Your task to perform on an android device: install app "Gmail" Image 0: 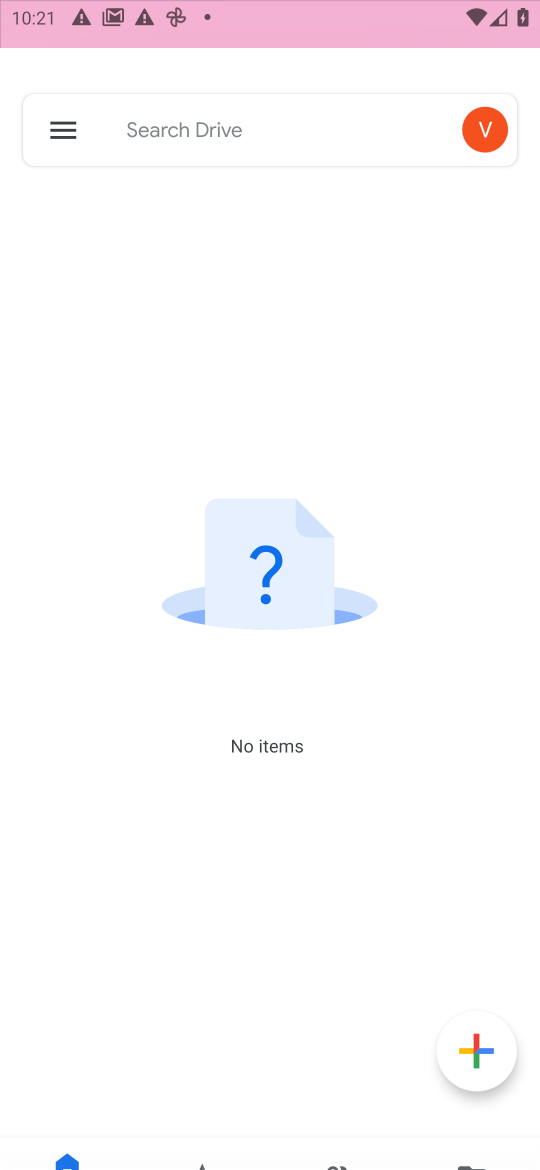
Step 0: drag from (490, 985) to (145, 2)
Your task to perform on an android device: install app "Gmail" Image 1: 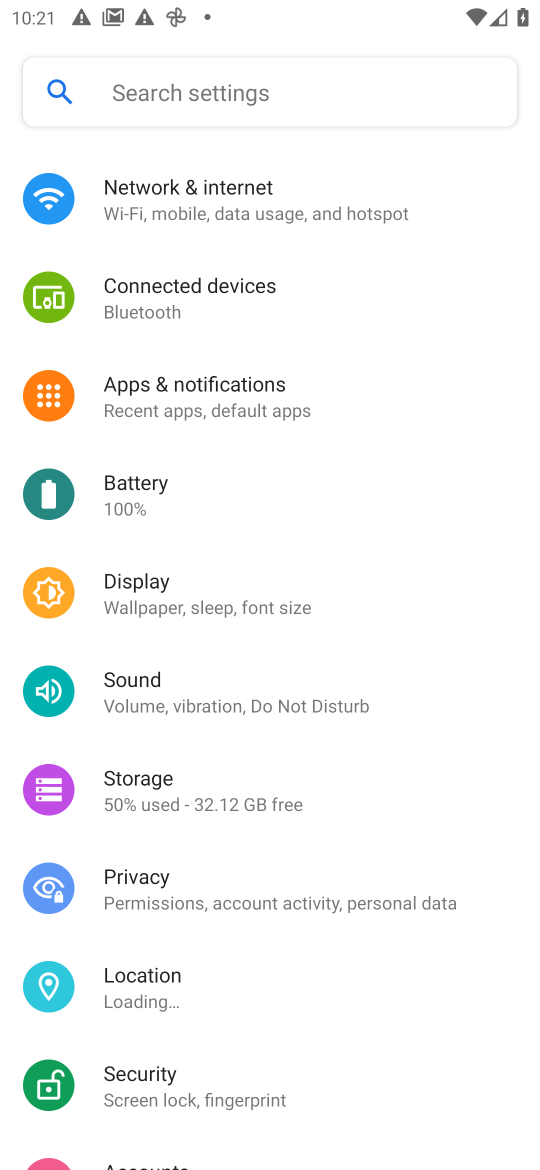
Step 1: press home button
Your task to perform on an android device: install app "Gmail" Image 2: 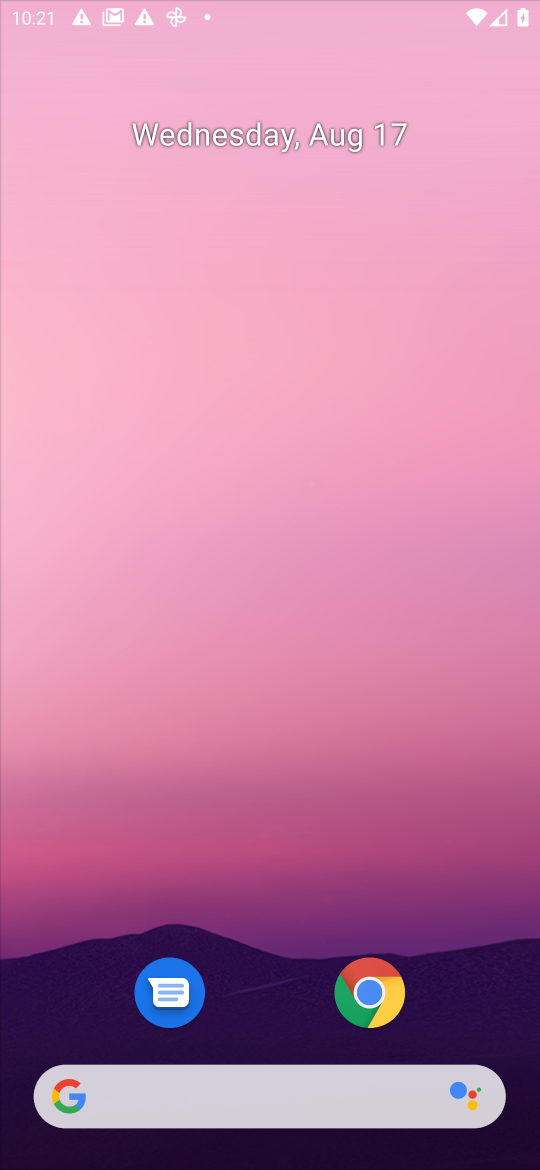
Step 2: drag from (474, 993) to (300, 94)
Your task to perform on an android device: install app "Gmail" Image 3: 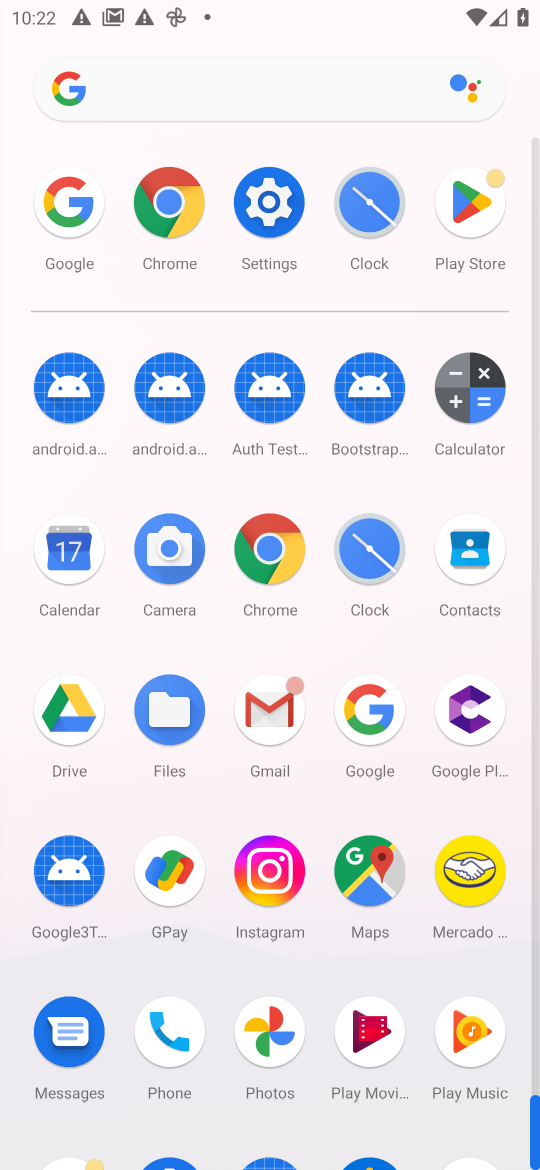
Step 3: click (494, 215)
Your task to perform on an android device: install app "Gmail" Image 4: 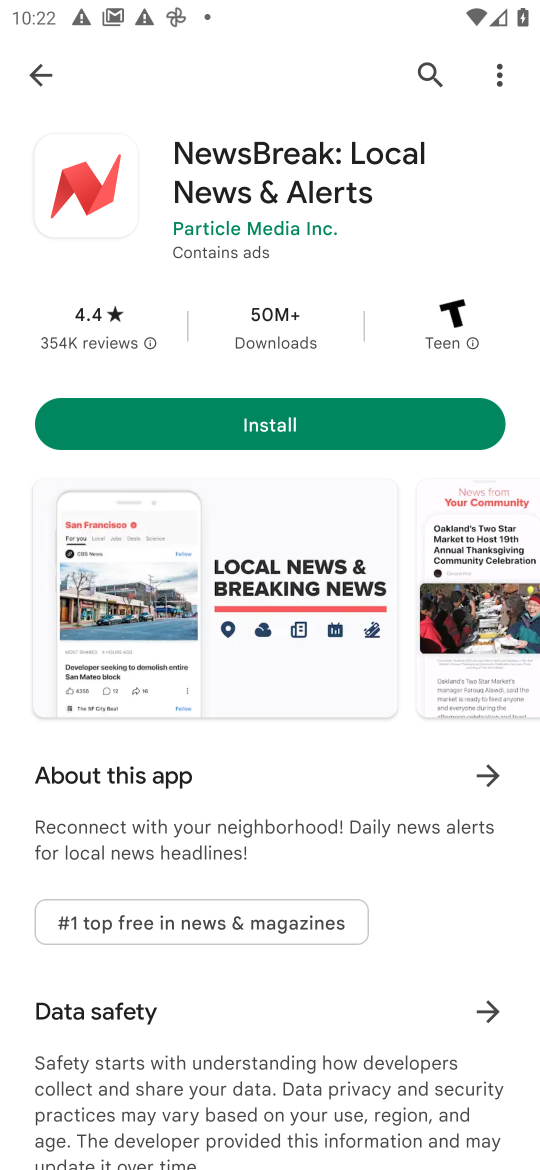
Step 4: press back button
Your task to perform on an android device: install app "Gmail" Image 5: 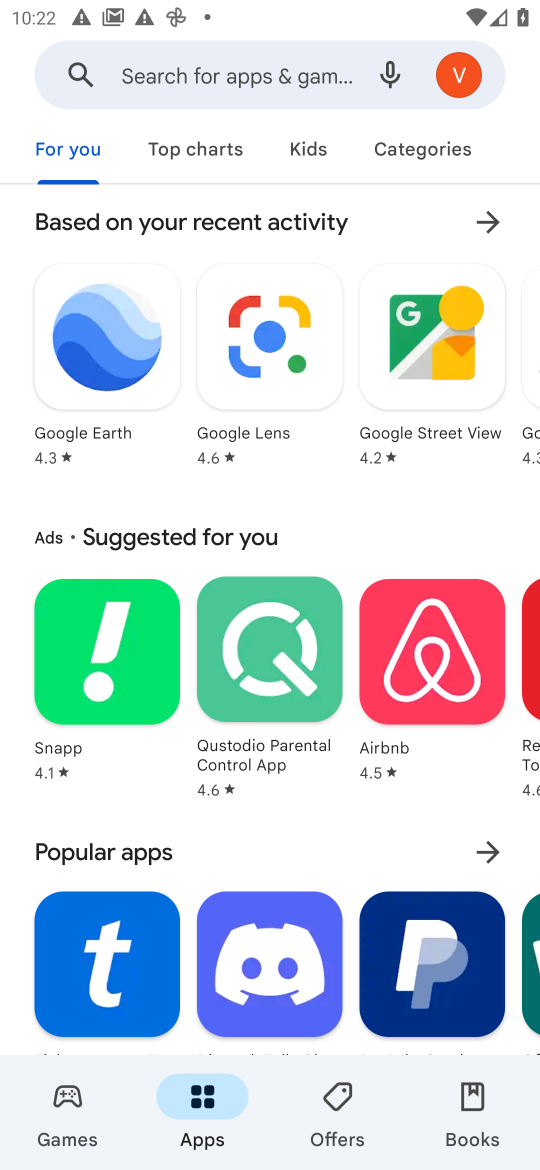
Step 5: click (215, 81)
Your task to perform on an android device: install app "Gmail" Image 6: 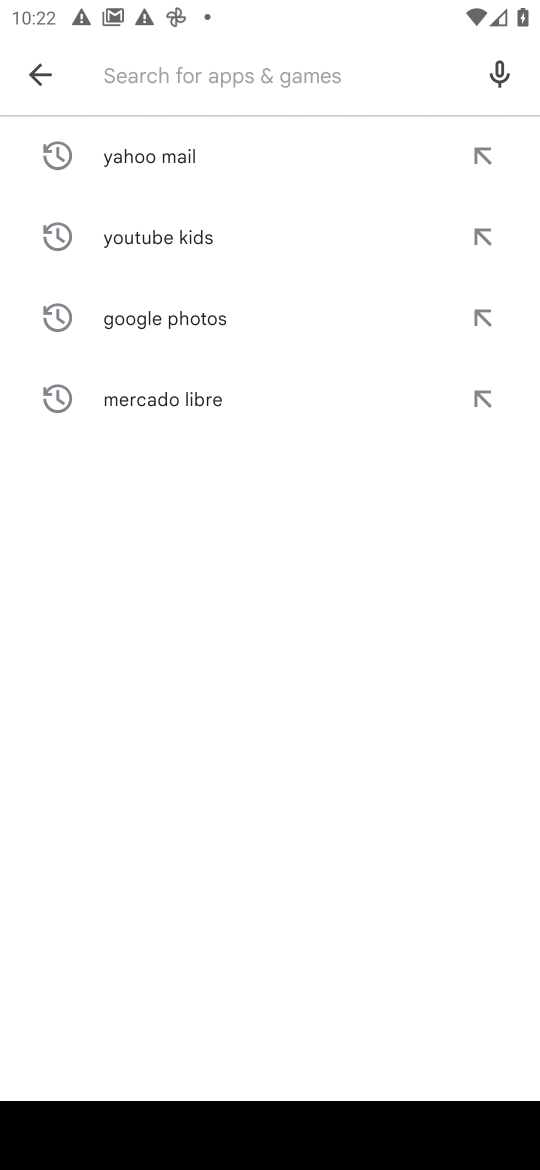
Step 6: type "Gmail"
Your task to perform on an android device: install app "Gmail" Image 7: 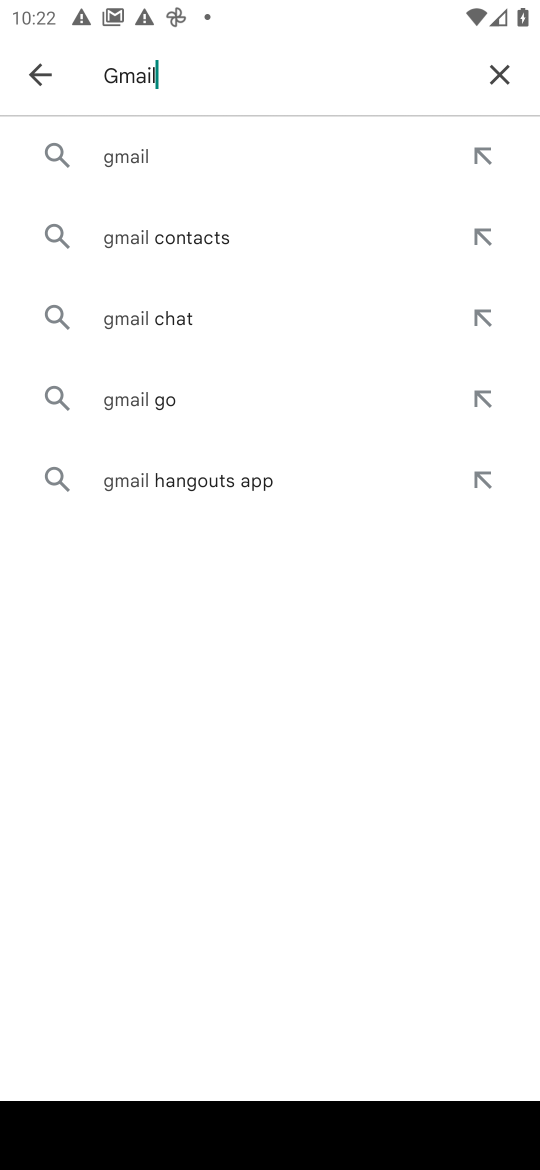
Step 7: click (156, 155)
Your task to perform on an android device: install app "Gmail" Image 8: 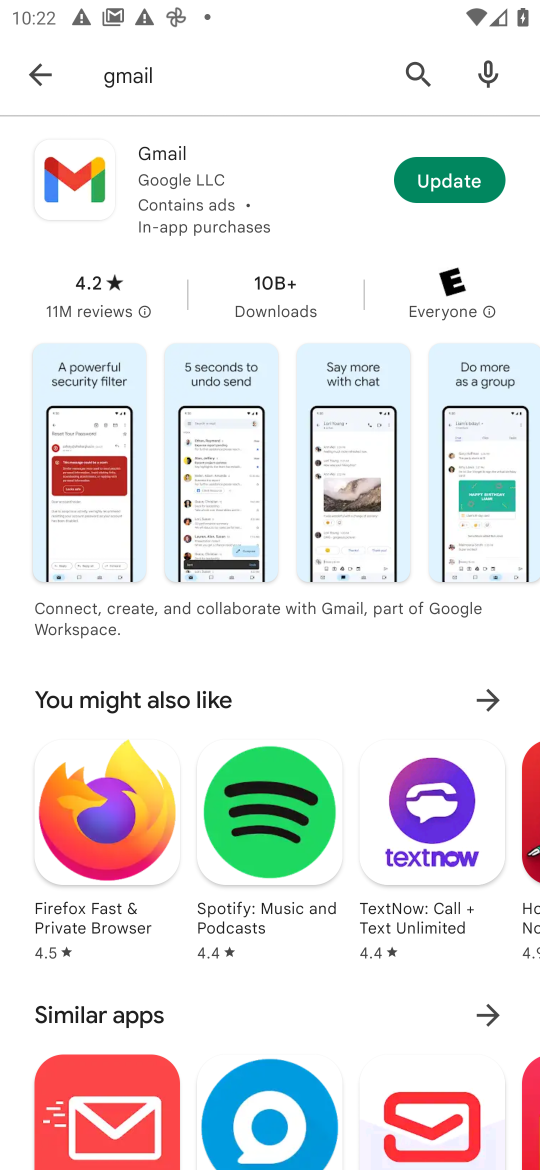
Step 8: click (439, 171)
Your task to perform on an android device: install app "Gmail" Image 9: 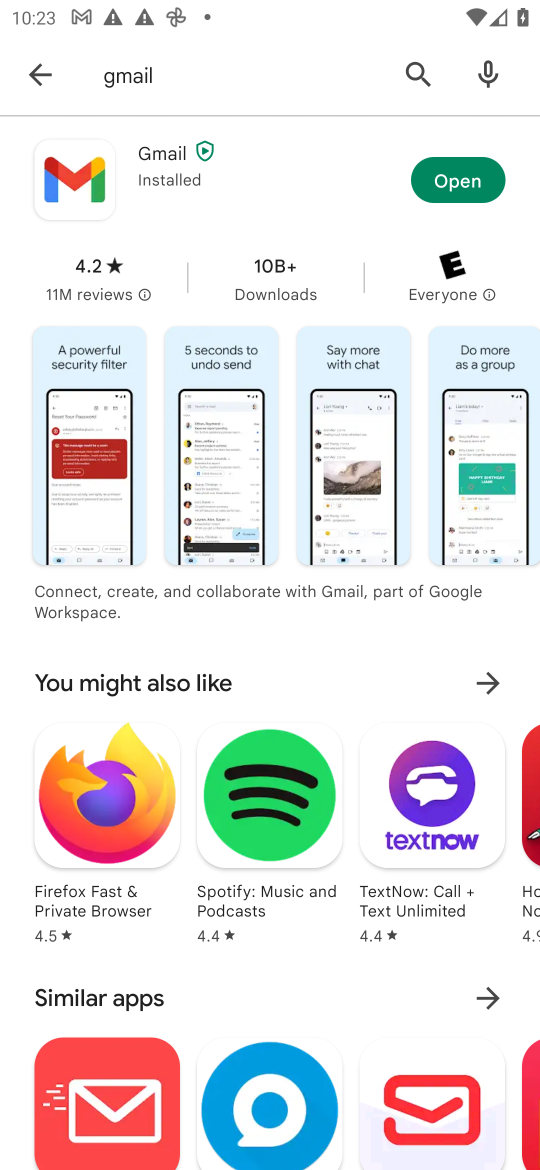
Step 9: task complete